Your task to perform on an android device: Search for seafood restaurants on Google Maps Image 0: 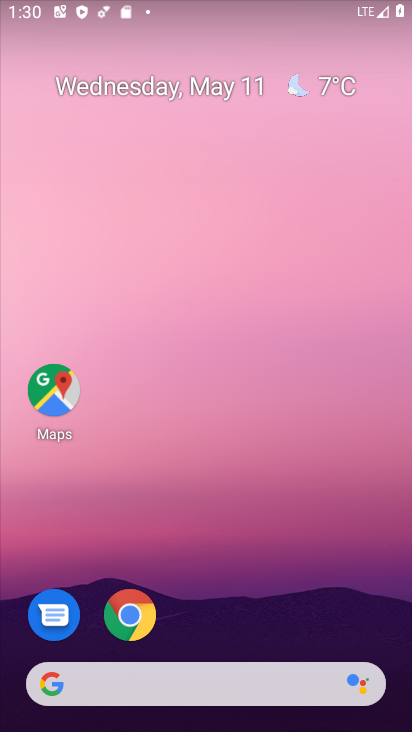
Step 0: click (48, 389)
Your task to perform on an android device: Search for seafood restaurants on Google Maps Image 1: 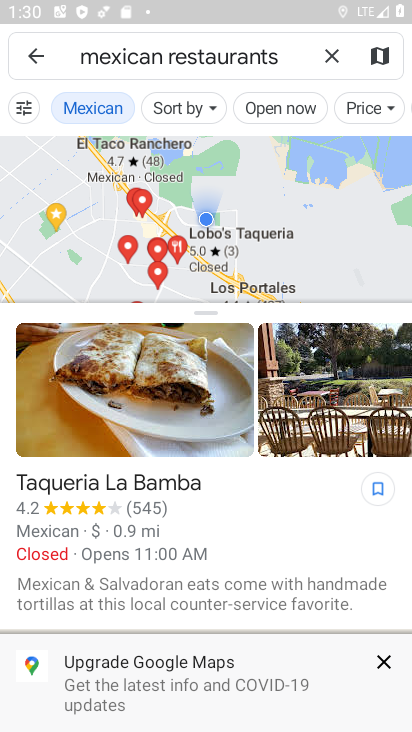
Step 1: click (282, 52)
Your task to perform on an android device: Search for seafood restaurants on Google Maps Image 2: 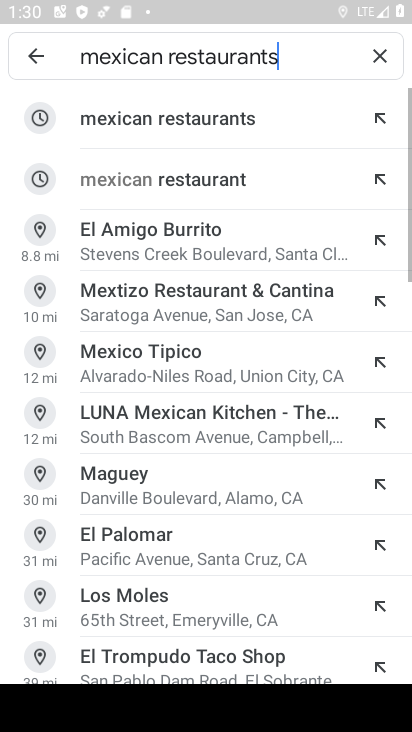
Step 2: click (379, 52)
Your task to perform on an android device: Search for seafood restaurants on Google Maps Image 3: 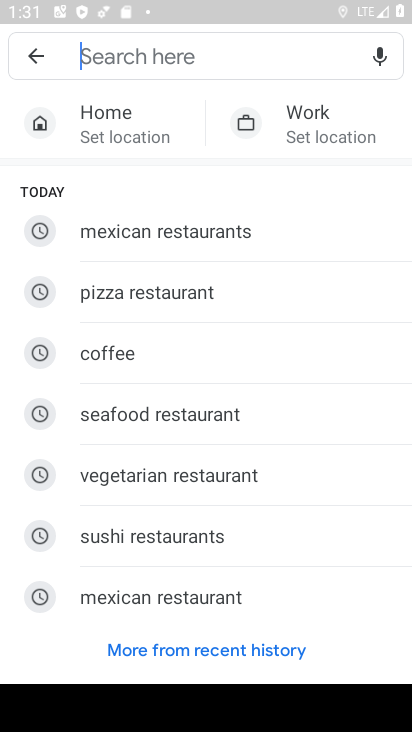
Step 3: type "seafood restaurants"
Your task to perform on an android device: Search for seafood restaurants on Google Maps Image 4: 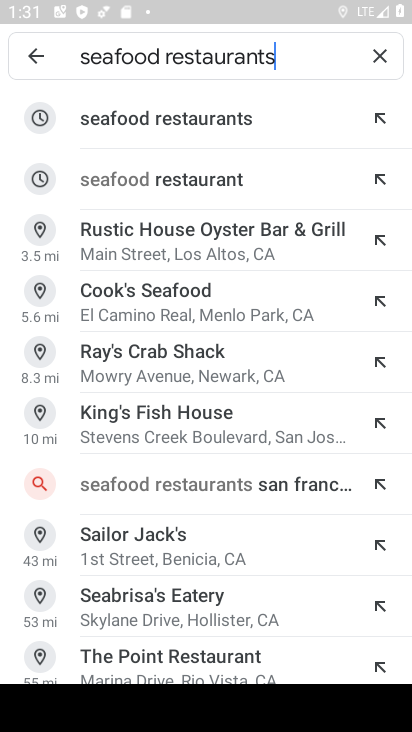
Step 4: click (171, 122)
Your task to perform on an android device: Search for seafood restaurants on Google Maps Image 5: 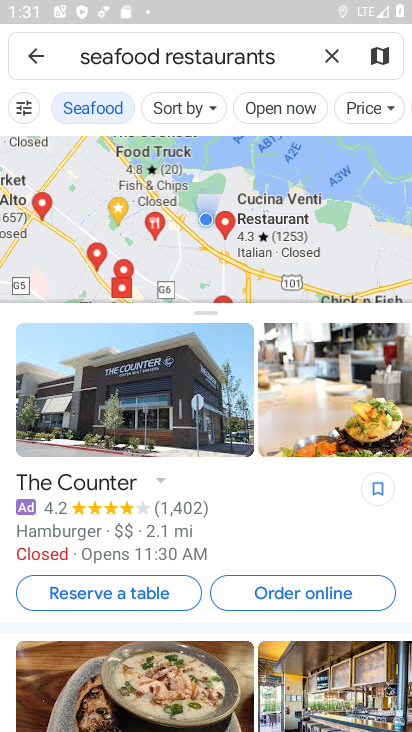
Step 5: task complete